Your task to perform on an android device: change notifications settings Image 0: 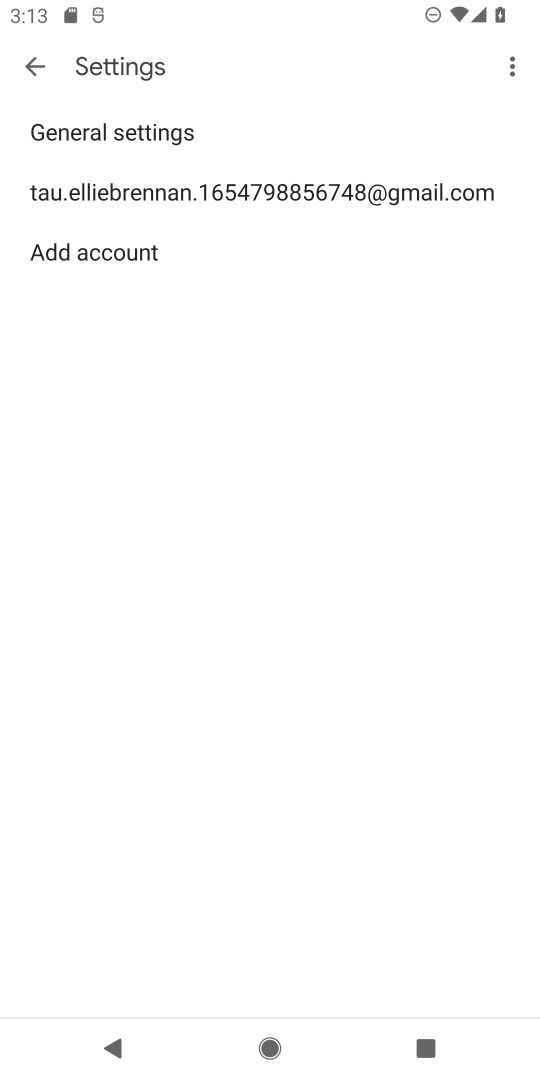
Step 0: press home button
Your task to perform on an android device: change notifications settings Image 1: 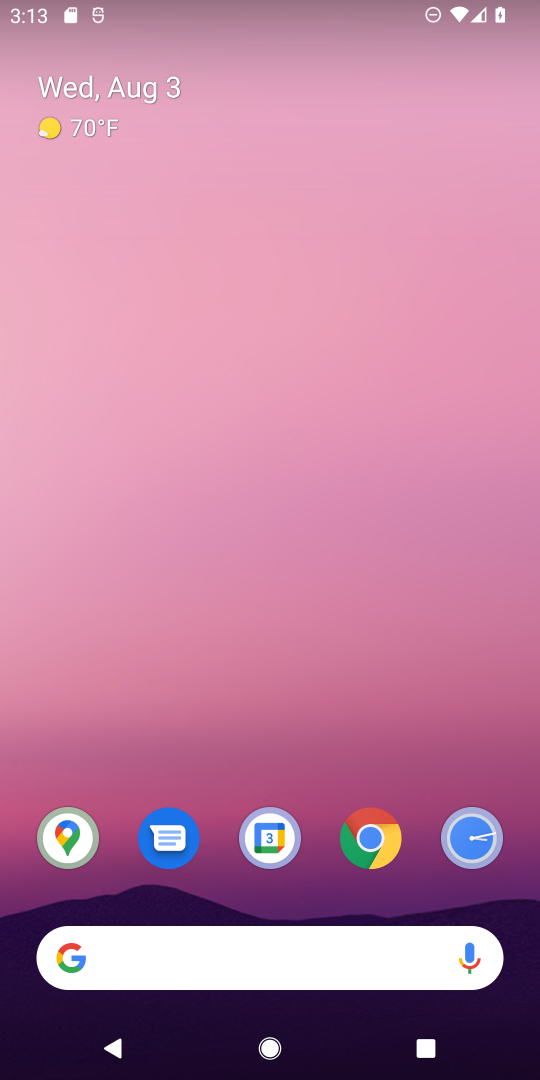
Step 1: drag from (314, 896) to (314, 338)
Your task to perform on an android device: change notifications settings Image 2: 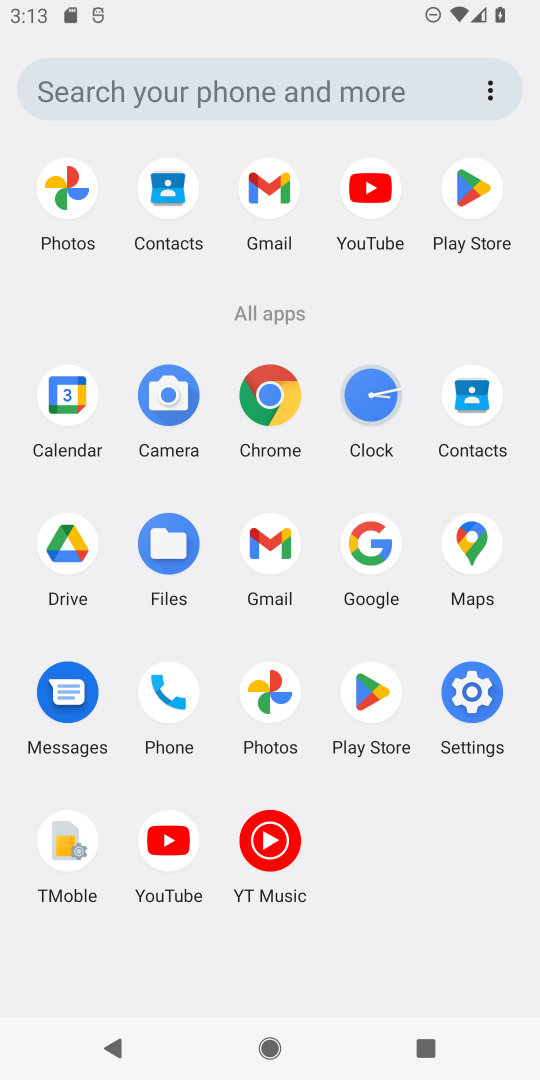
Step 2: click (486, 697)
Your task to perform on an android device: change notifications settings Image 3: 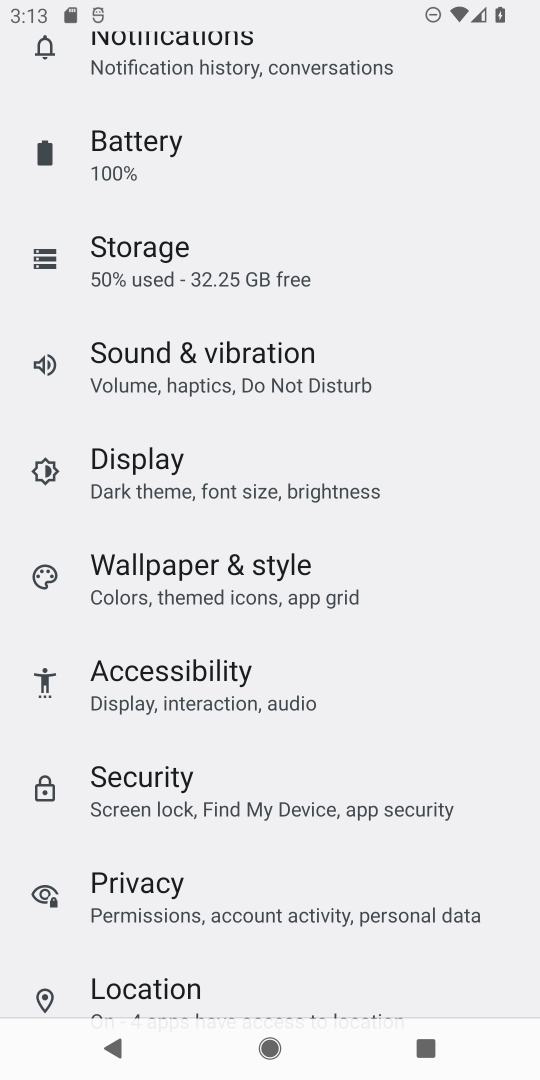
Step 3: click (220, 61)
Your task to perform on an android device: change notifications settings Image 4: 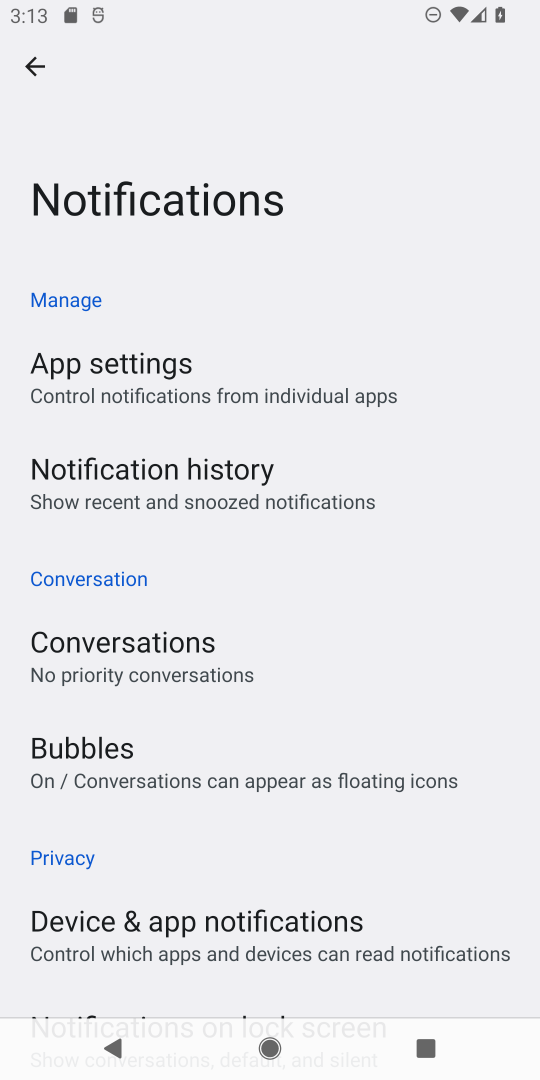
Step 4: click (242, 404)
Your task to perform on an android device: change notifications settings Image 5: 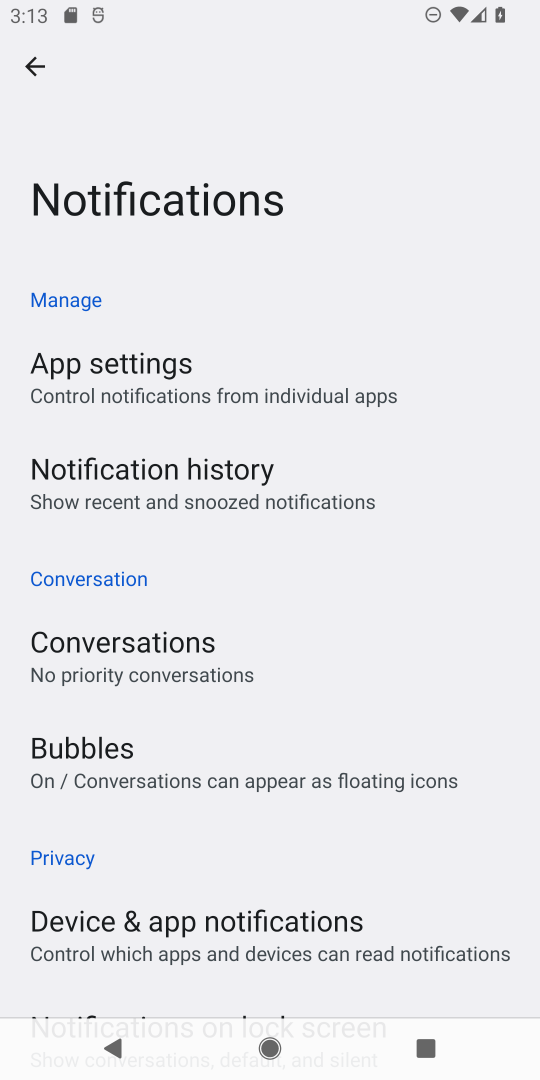
Step 5: click (242, 404)
Your task to perform on an android device: change notifications settings Image 6: 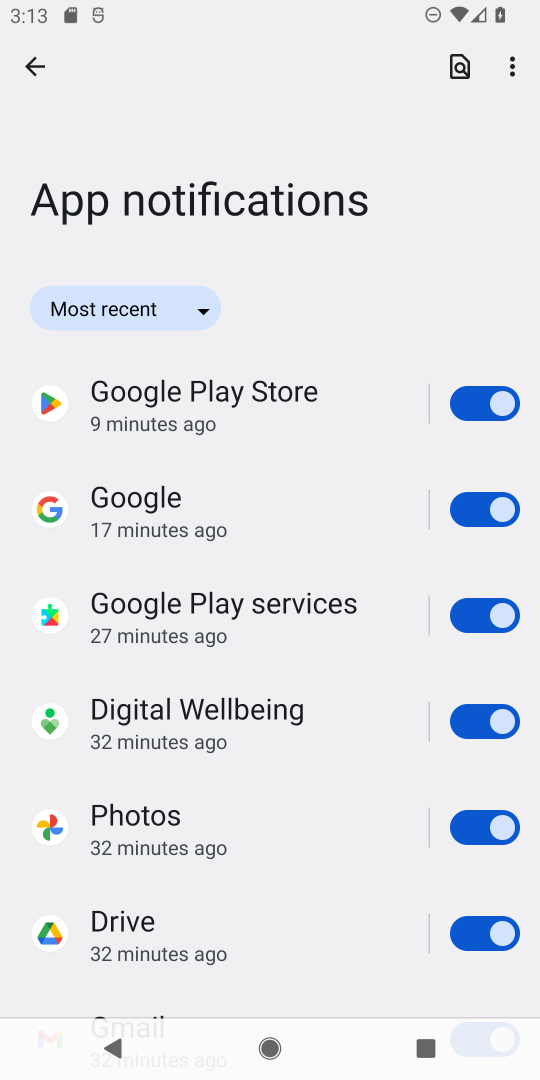
Step 6: click (472, 389)
Your task to perform on an android device: change notifications settings Image 7: 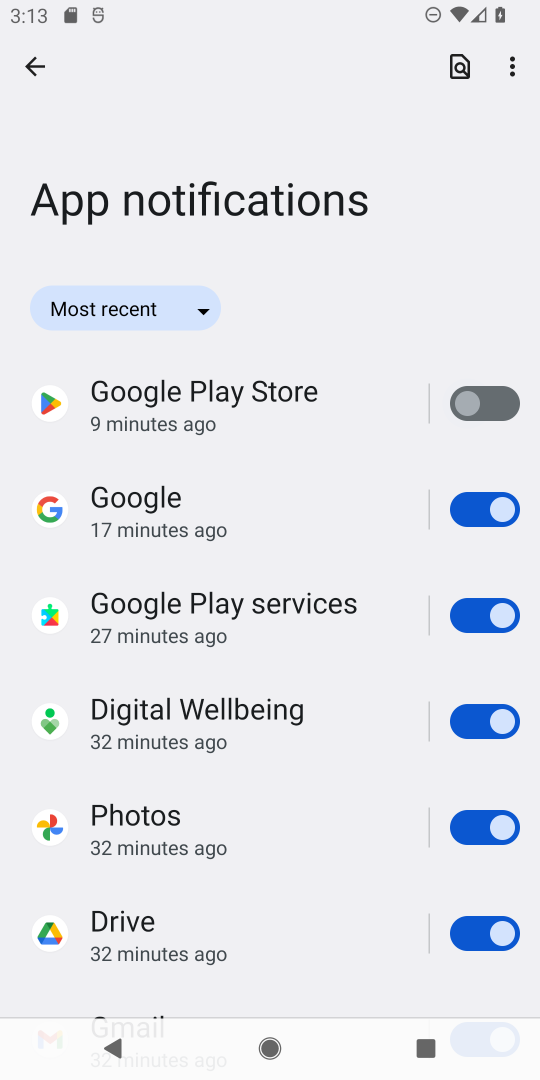
Step 7: click (472, 509)
Your task to perform on an android device: change notifications settings Image 8: 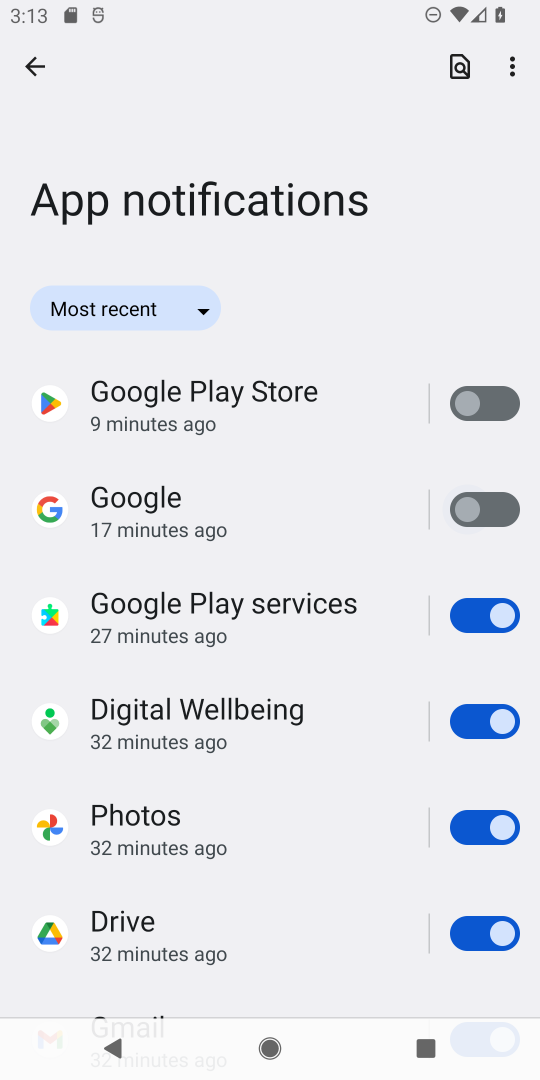
Step 8: click (472, 624)
Your task to perform on an android device: change notifications settings Image 9: 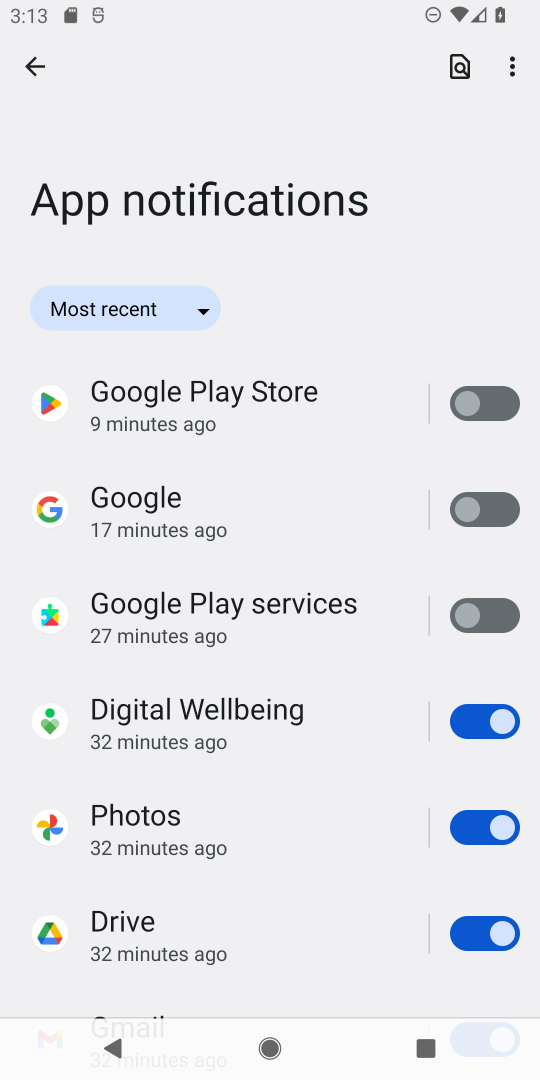
Step 9: click (460, 728)
Your task to perform on an android device: change notifications settings Image 10: 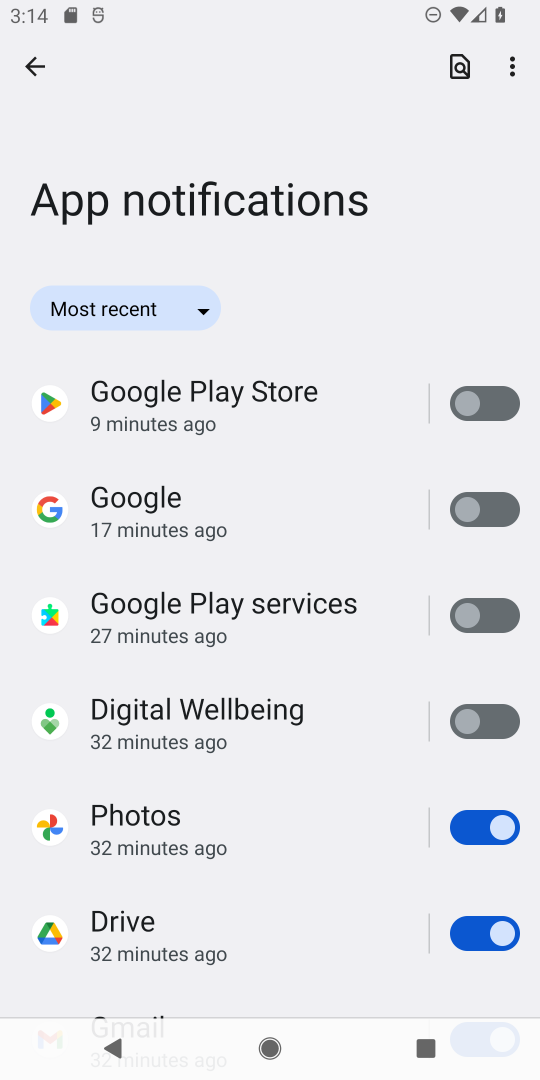
Step 10: click (486, 837)
Your task to perform on an android device: change notifications settings Image 11: 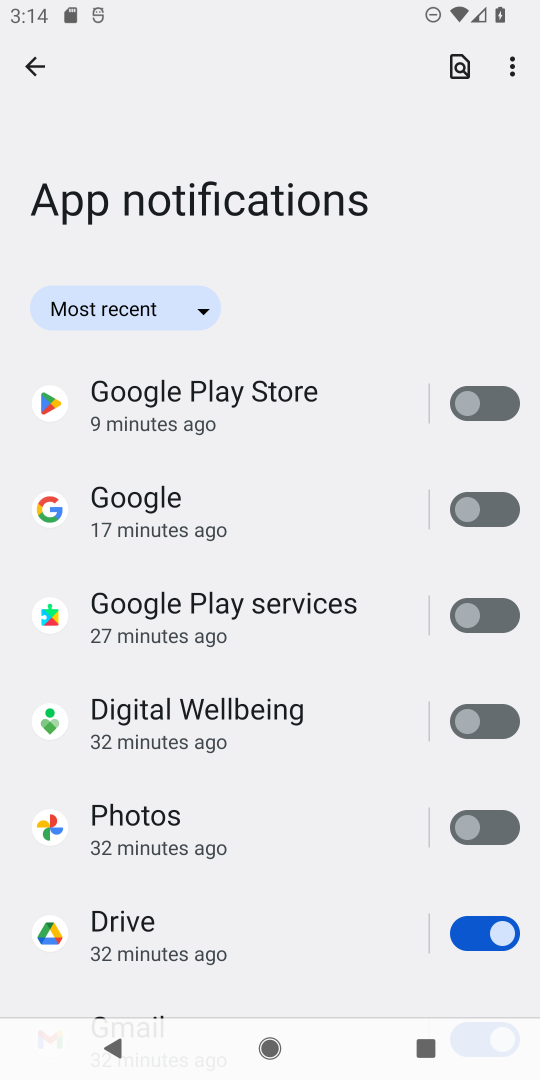
Step 11: click (475, 925)
Your task to perform on an android device: change notifications settings Image 12: 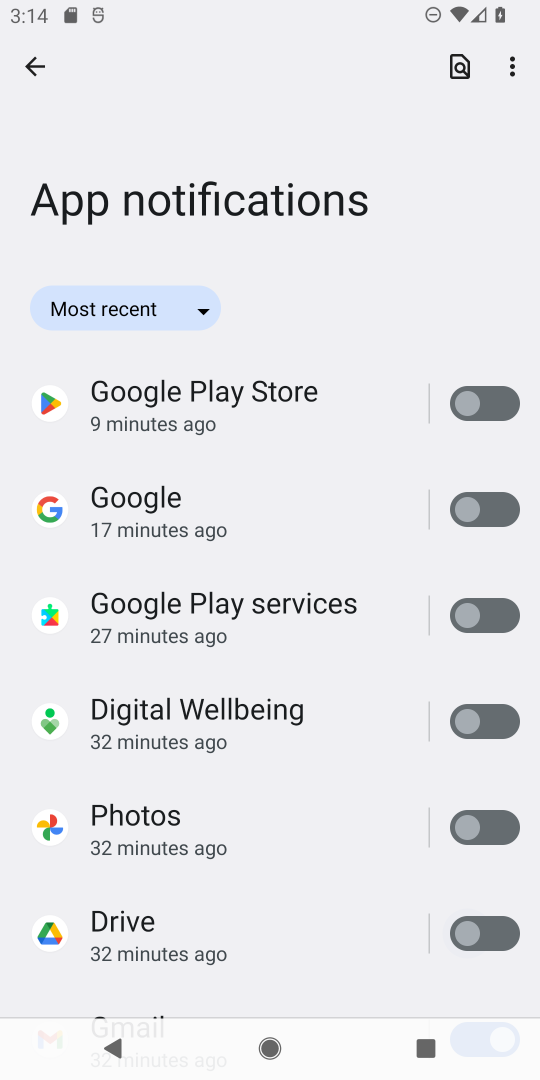
Step 12: drag from (311, 877) to (297, 89)
Your task to perform on an android device: change notifications settings Image 13: 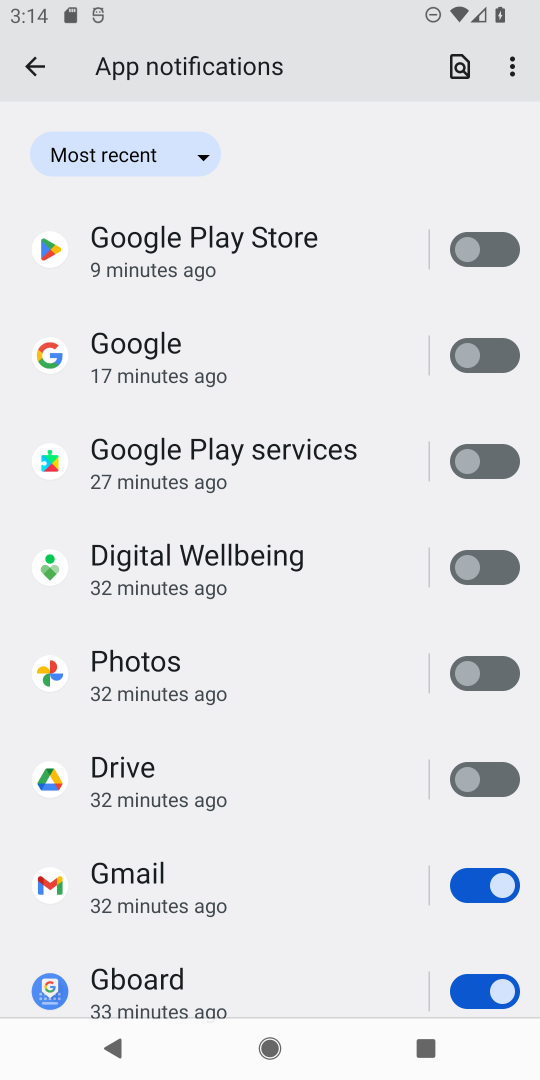
Step 13: click (483, 868)
Your task to perform on an android device: change notifications settings Image 14: 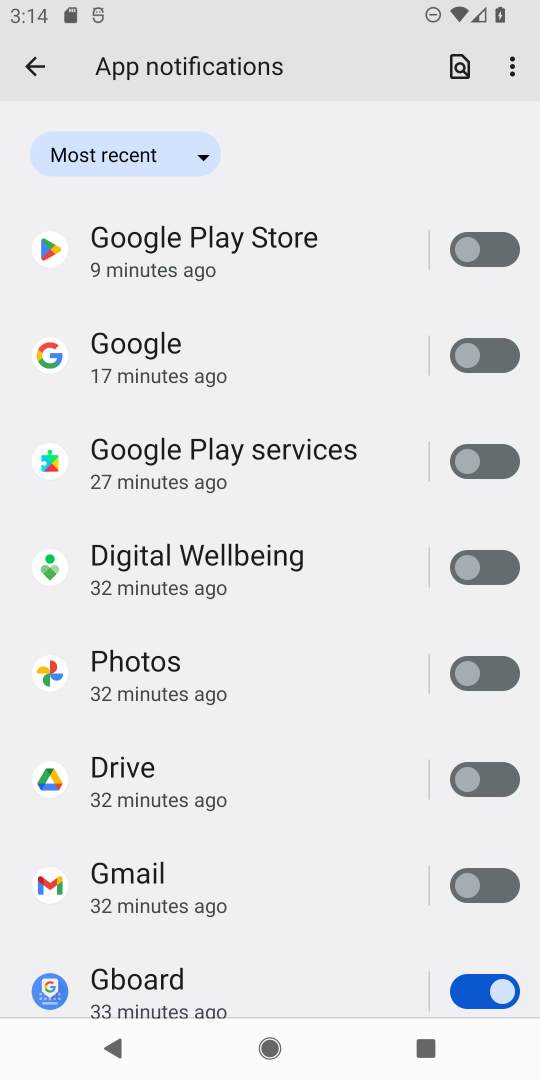
Step 14: click (476, 1012)
Your task to perform on an android device: change notifications settings Image 15: 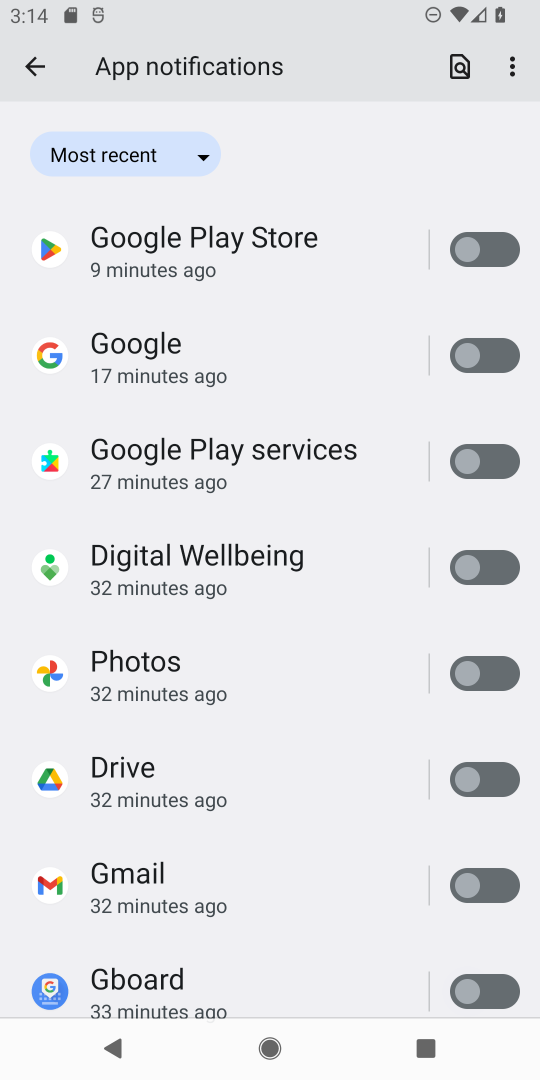
Step 15: drag from (253, 915) to (248, 168)
Your task to perform on an android device: change notifications settings Image 16: 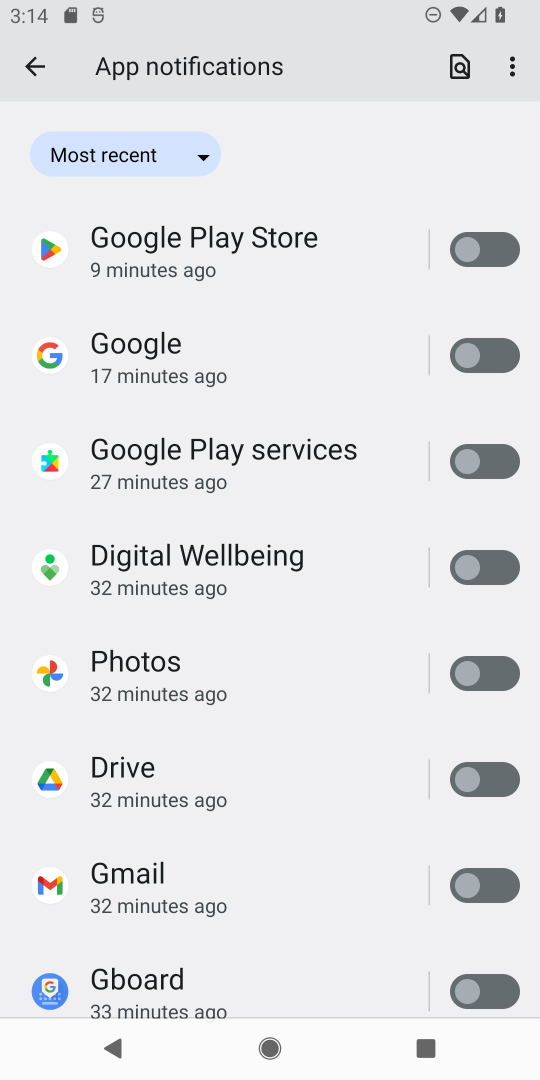
Step 16: click (45, 69)
Your task to perform on an android device: change notifications settings Image 17: 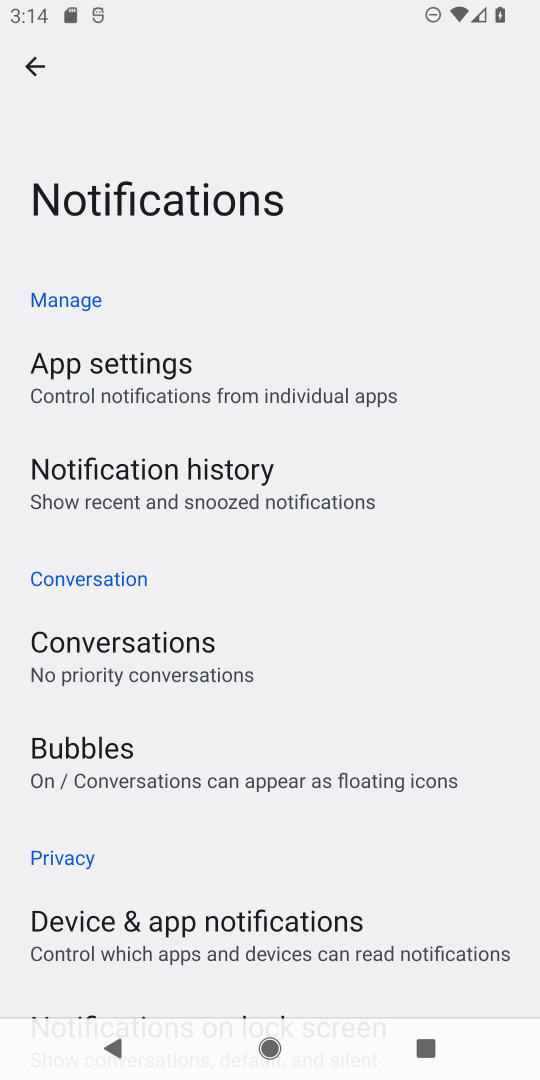
Step 17: click (265, 470)
Your task to perform on an android device: change notifications settings Image 18: 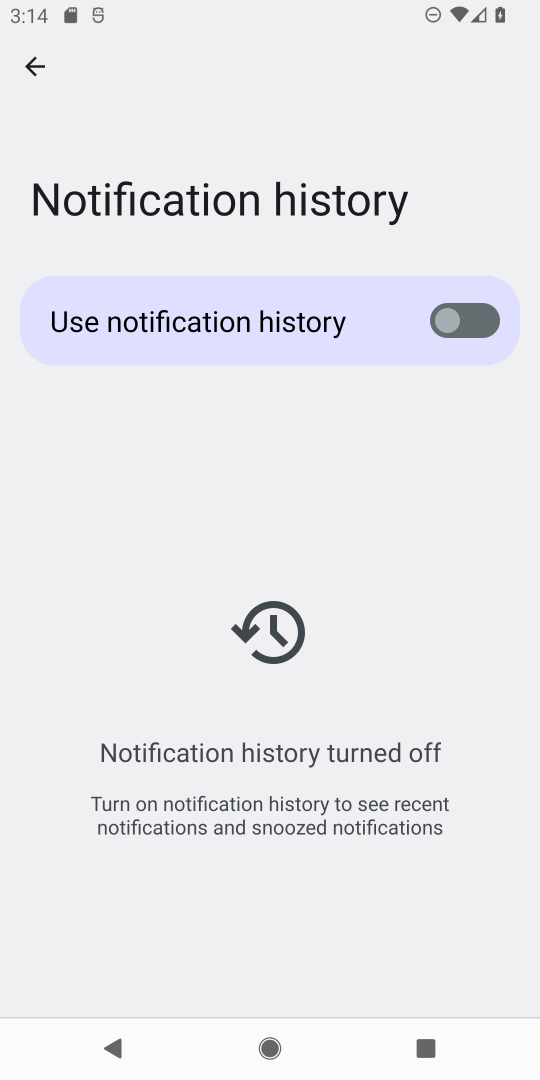
Step 18: click (462, 306)
Your task to perform on an android device: change notifications settings Image 19: 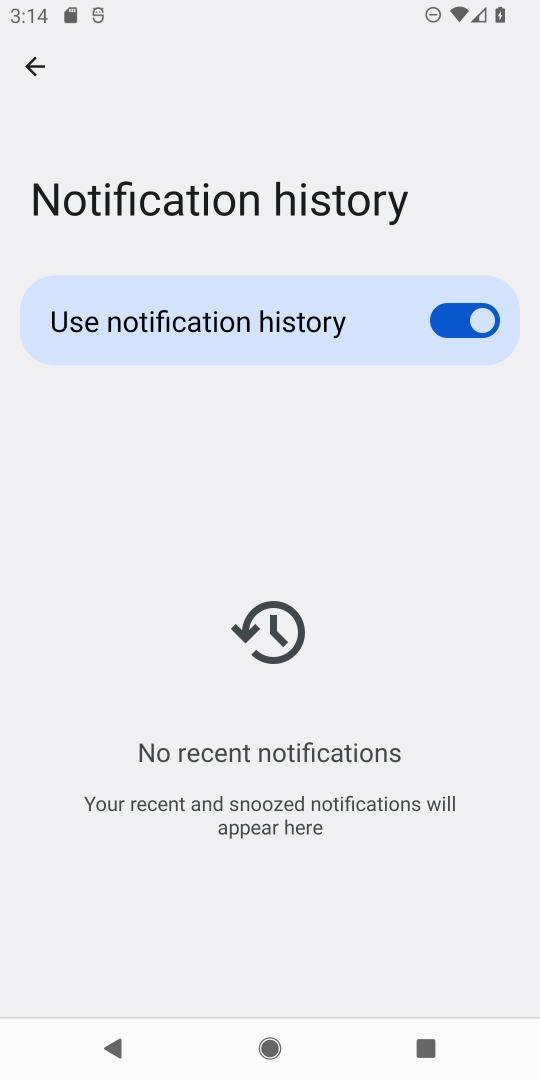
Step 19: click (32, 62)
Your task to perform on an android device: change notifications settings Image 20: 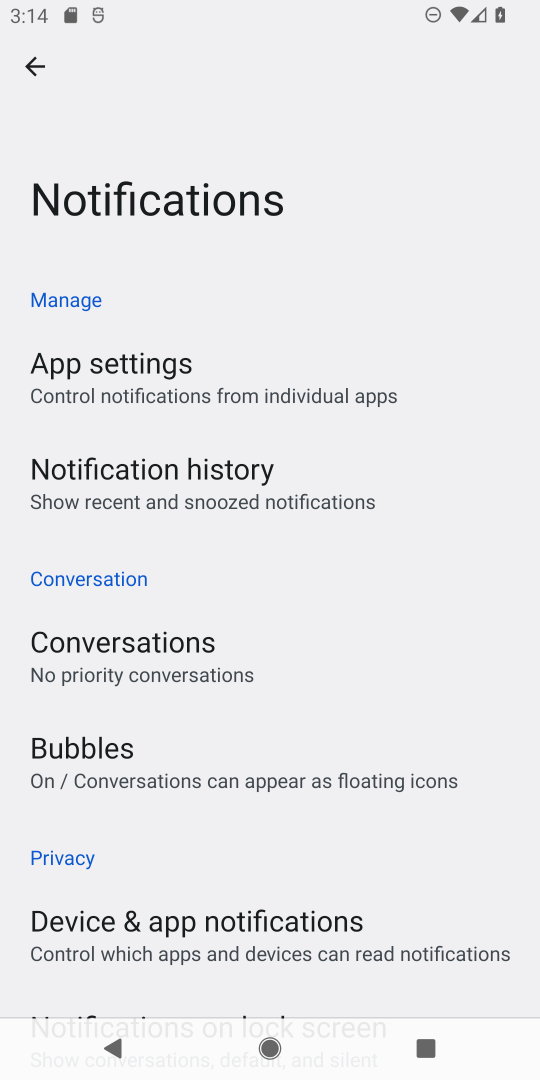
Step 20: click (176, 658)
Your task to perform on an android device: change notifications settings Image 21: 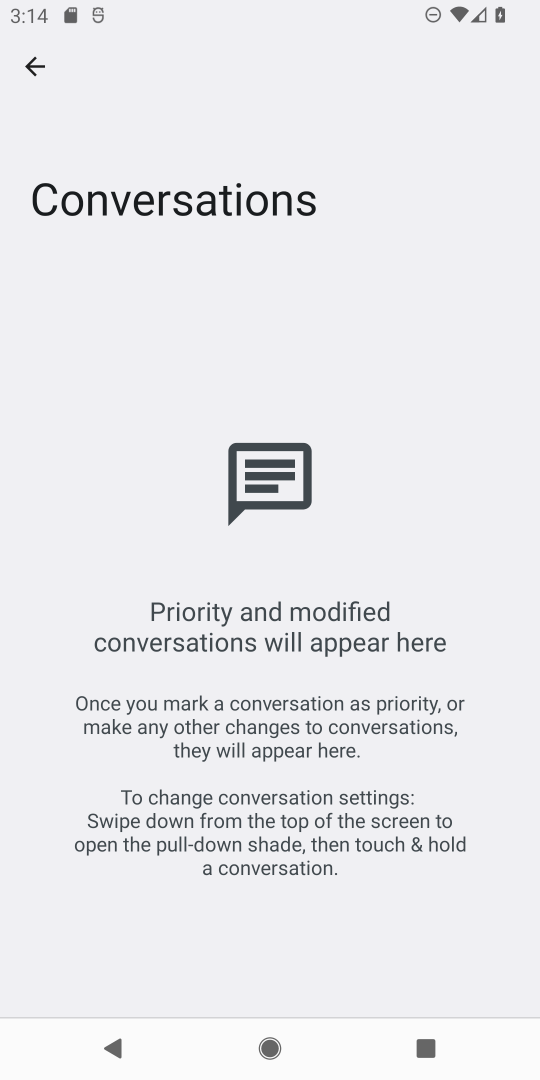
Step 21: drag from (195, 819) to (167, 251)
Your task to perform on an android device: change notifications settings Image 22: 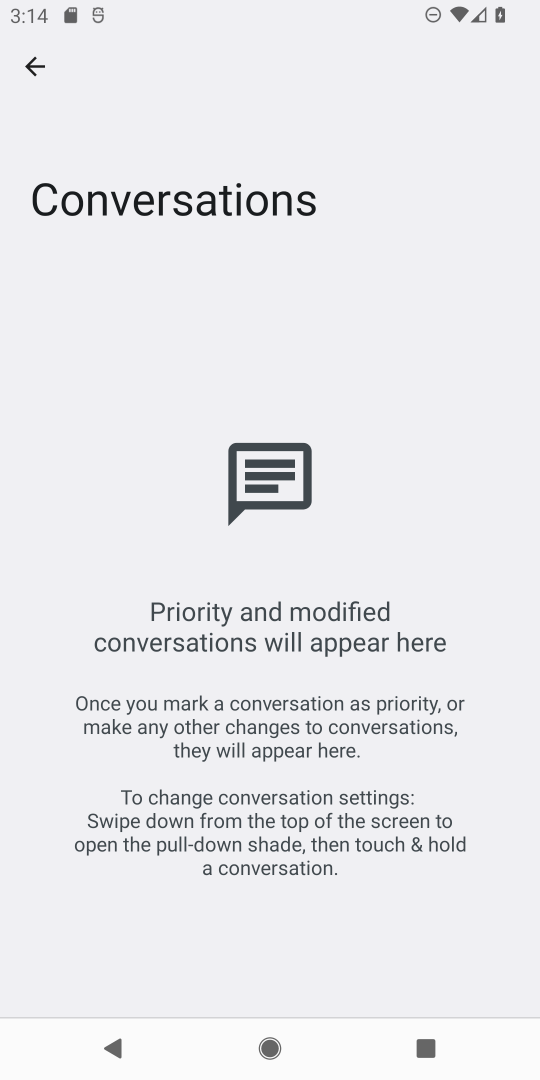
Step 22: click (34, 54)
Your task to perform on an android device: change notifications settings Image 23: 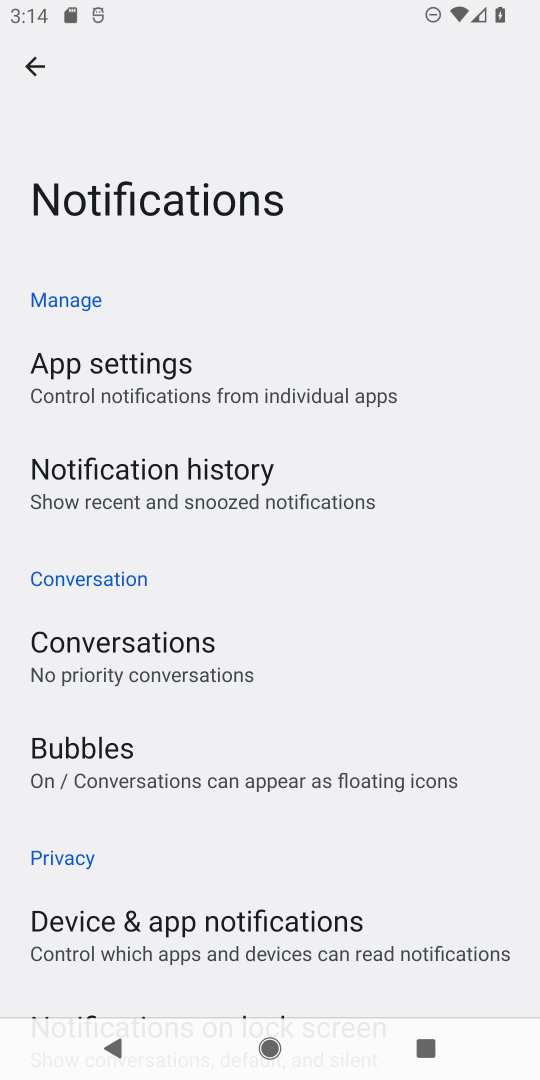
Step 23: click (179, 916)
Your task to perform on an android device: change notifications settings Image 24: 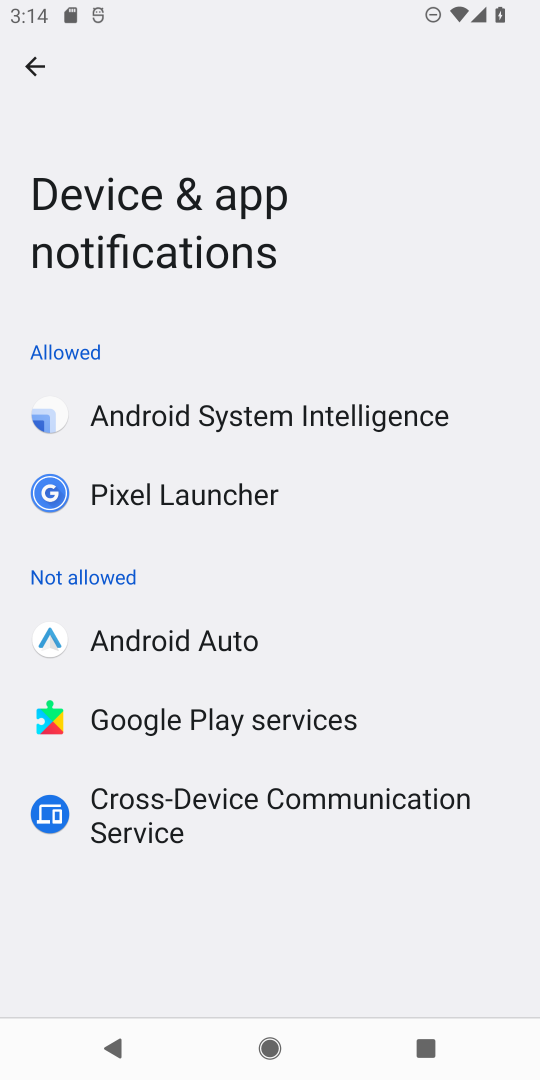
Step 24: click (30, 54)
Your task to perform on an android device: change notifications settings Image 25: 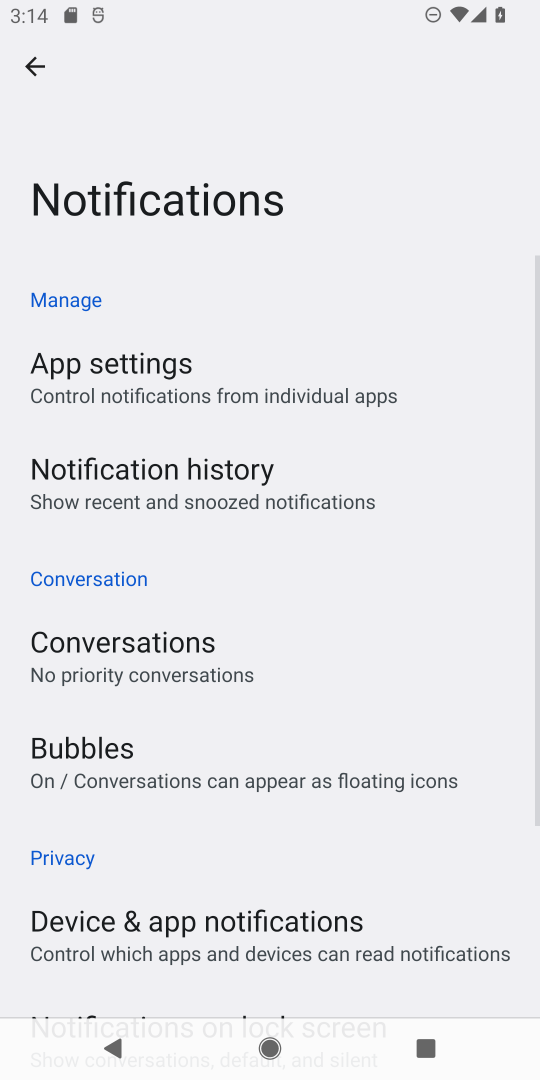
Step 25: drag from (238, 833) to (246, 274)
Your task to perform on an android device: change notifications settings Image 26: 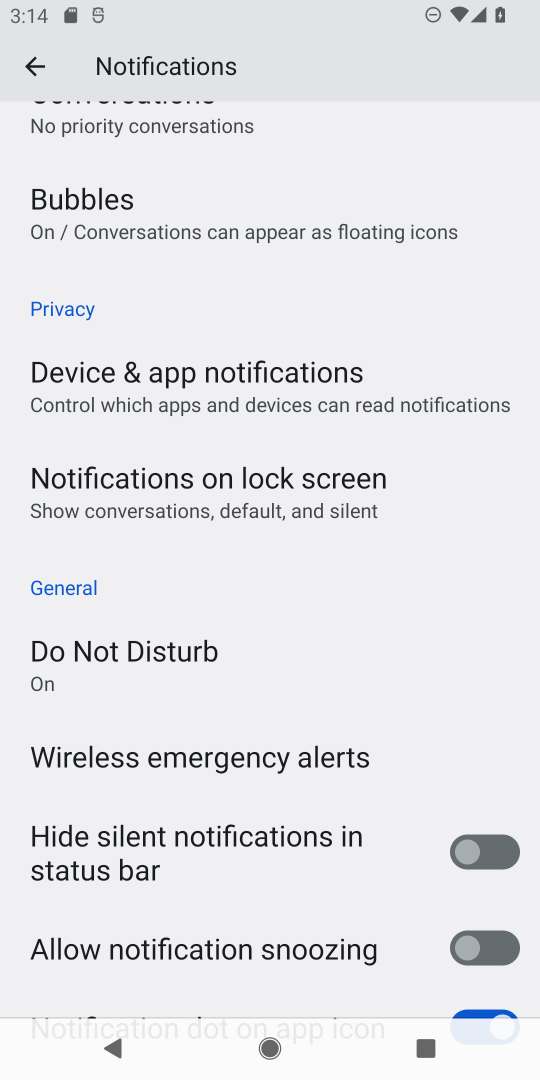
Step 26: drag from (269, 913) to (241, 446)
Your task to perform on an android device: change notifications settings Image 27: 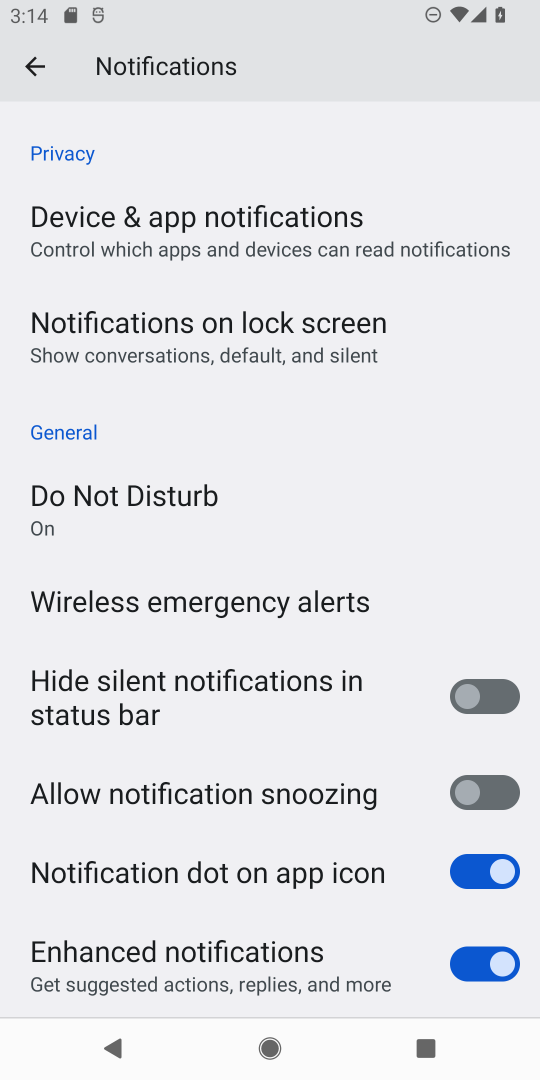
Step 27: click (478, 702)
Your task to perform on an android device: change notifications settings Image 28: 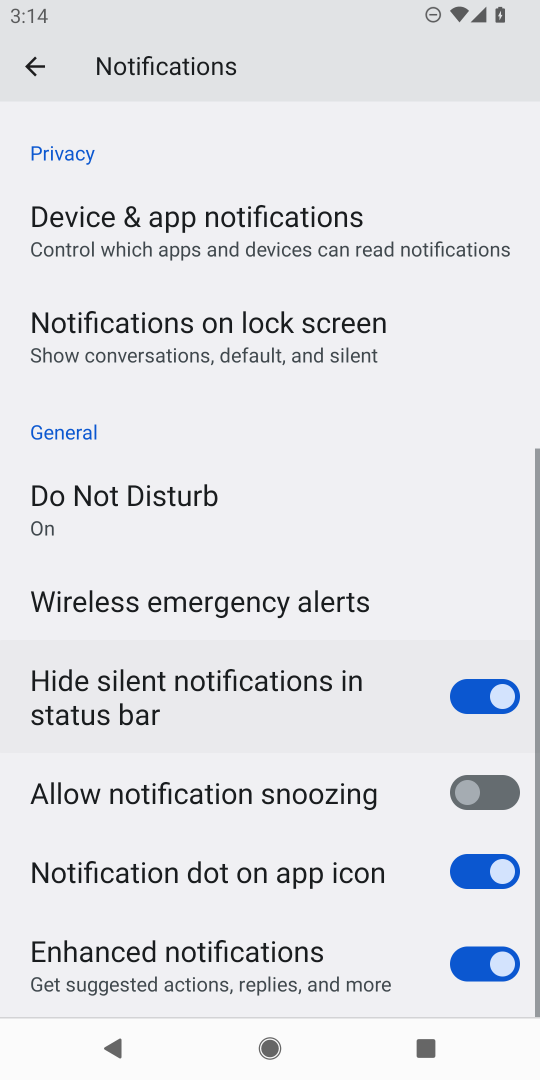
Step 28: click (489, 805)
Your task to perform on an android device: change notifications settings Image 29: 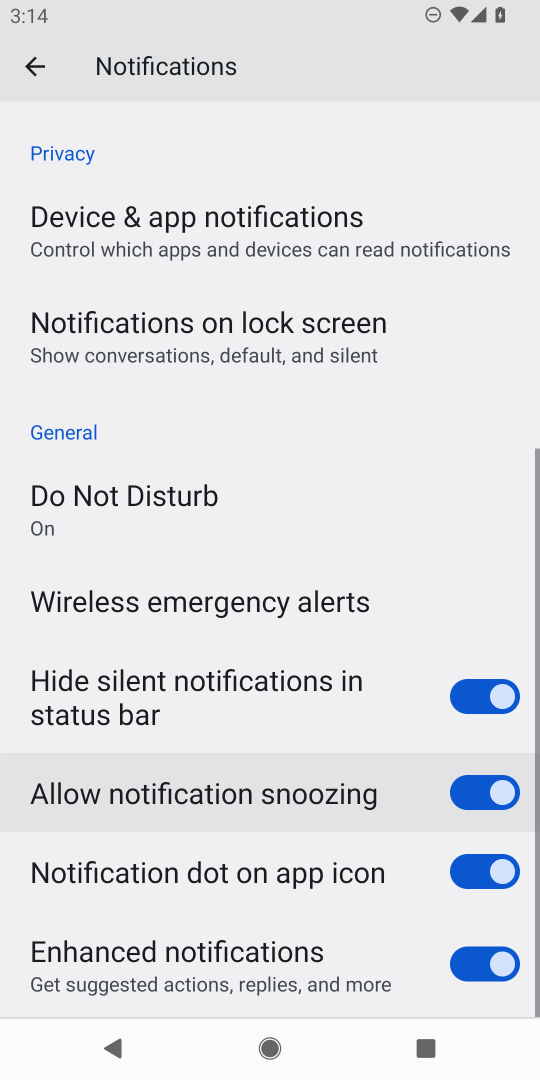
Step 29: click (489, 865)
Your task to perform on an android device: change notifications settings Image 30: 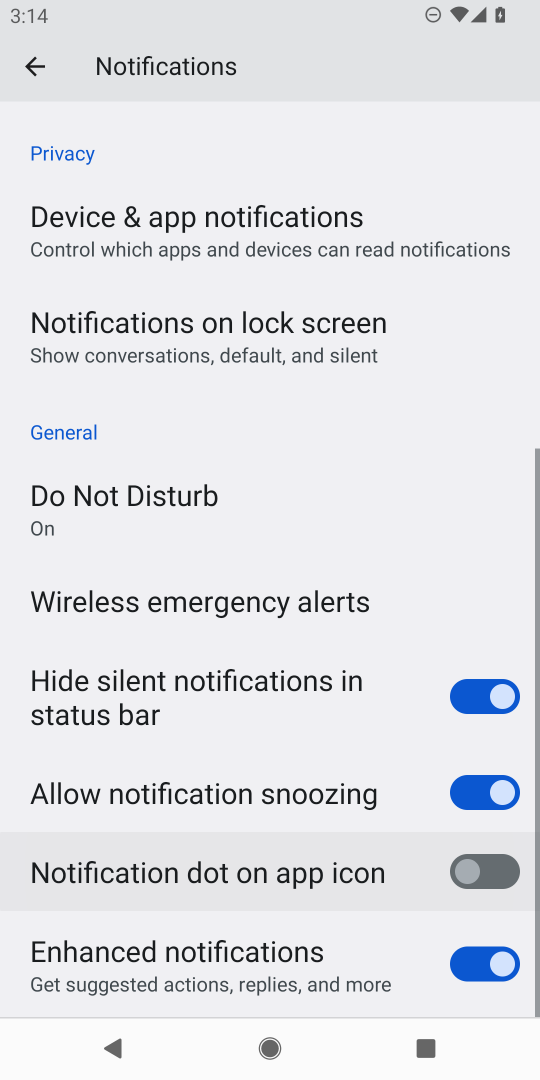
Step 30: click (493, 982)
Your task to perform on an android device: change notifications settings Image 31: 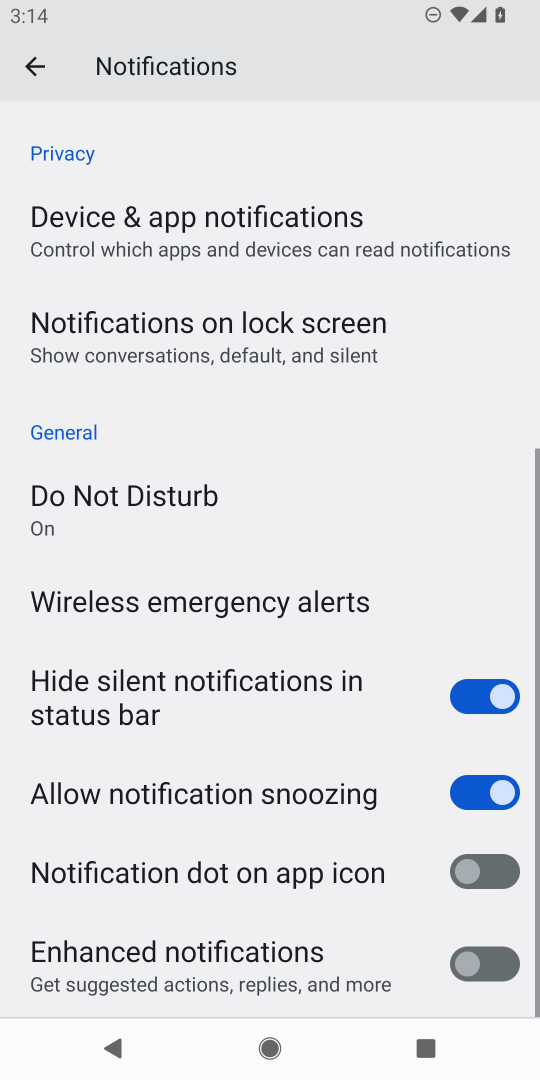
Step 31: drag from (400, 948) to (395, 405)
Your task to perform on an android device: change notifications settings Image 32: 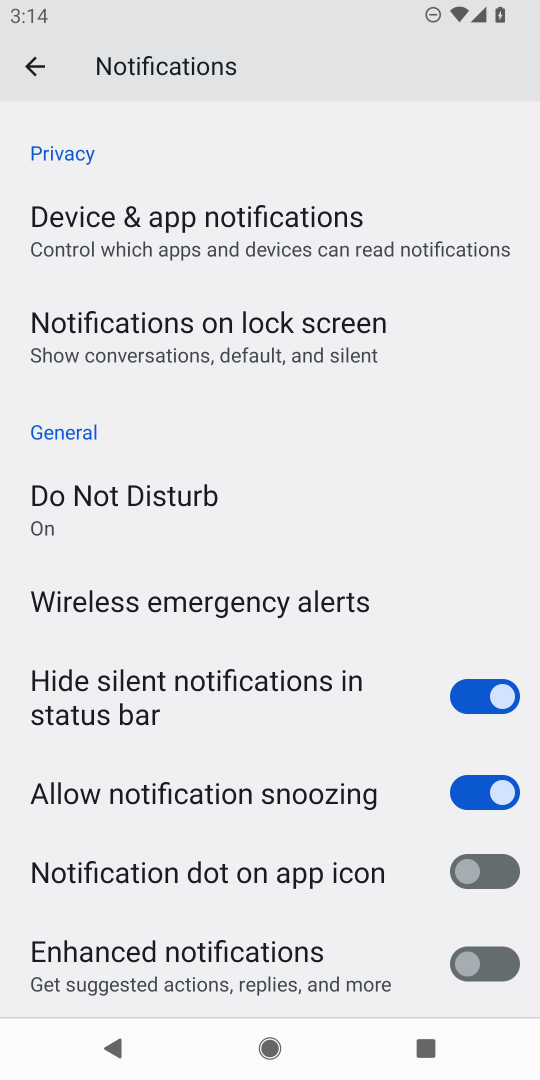
Step 32: click (216, 323)
Your task to perform on an android device: change notifications settings Image 33: 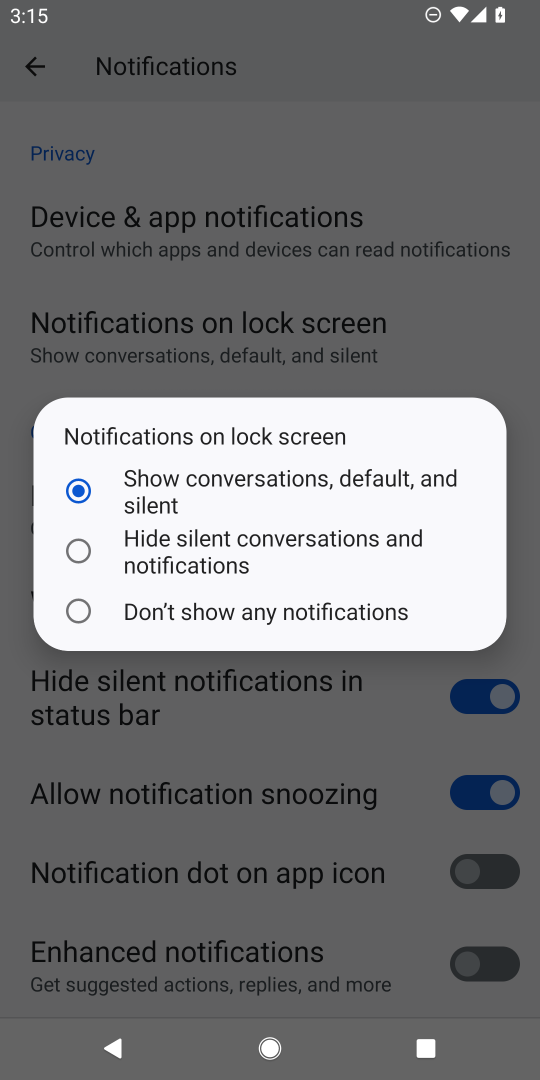
Step 33: click (203, 548)
Your task to perform on an android device: change notifications settings Image 34: 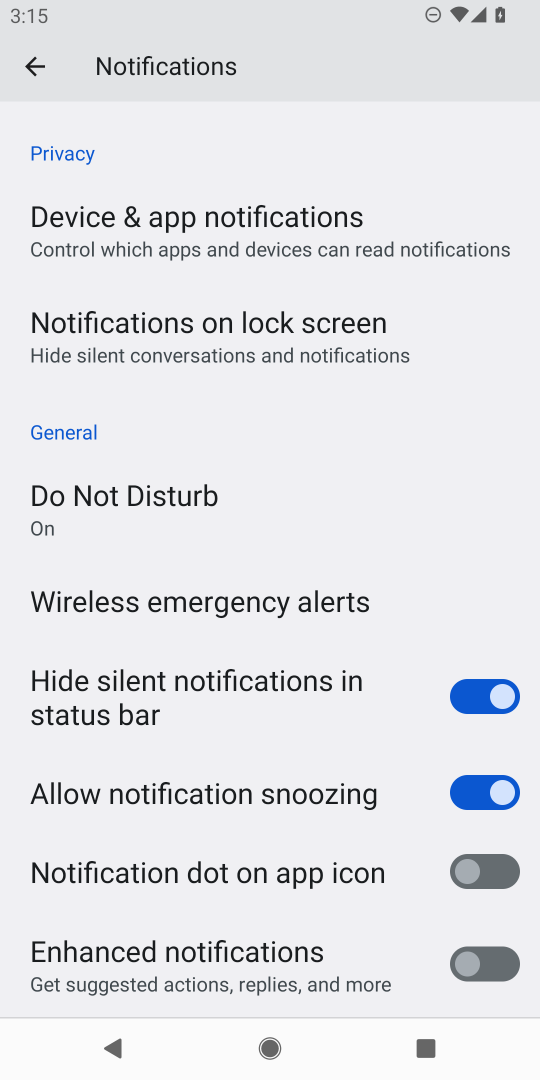
Step 34: task complete